Your task to perform on an android device: turn on notifications settings in the gmail app Image 0: 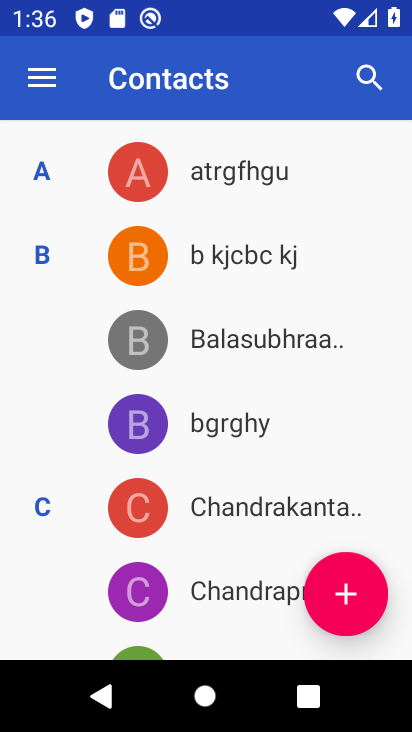
Step 0: press back button
Your task to perform on an android device: turn on notifications settings in the gmail app Image 1: 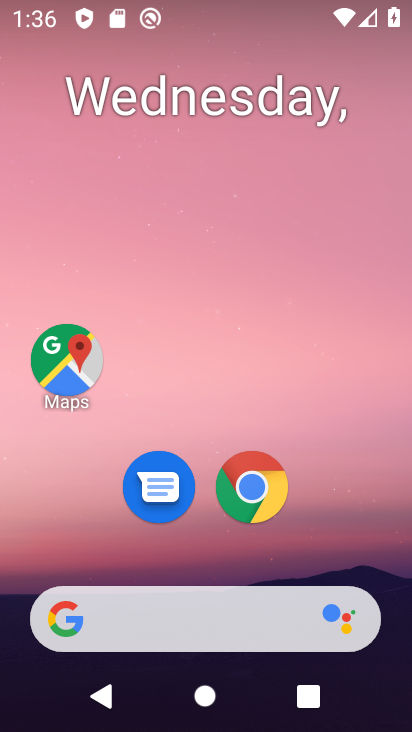
Step 1: drag from (125, 540) to (271, 14)
Your task to perform on an android device: turn on notifications settings in the gmail app Image 2: 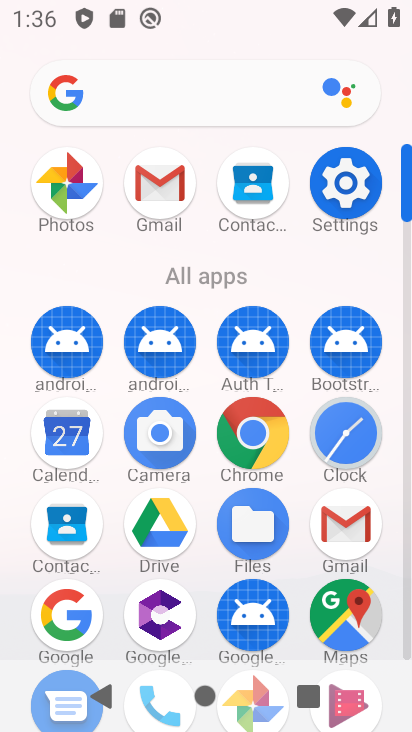
Step 2: click (162, 192)
Your task to perform on an android device: turn on notifications settings in the gmail app Image 3: 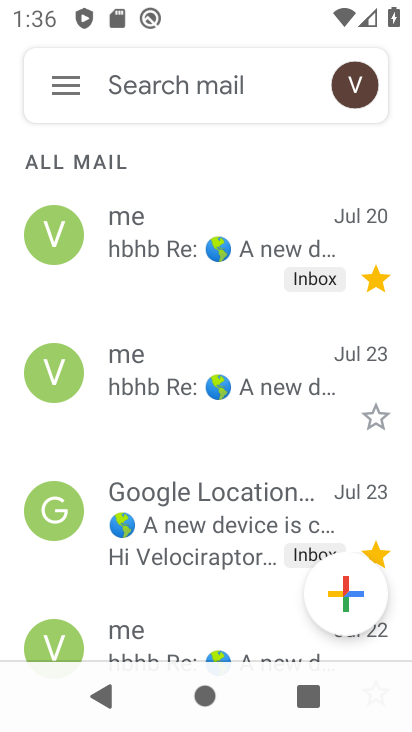
Step 3: click (79, 80)
Your task to perform on an android device: turn on notifications settings in the gmail app Image 4: 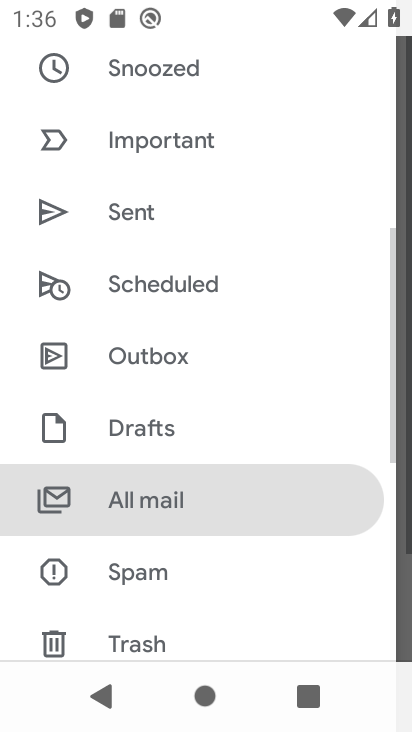
Step 4: drag from (227, 214) to (225, 654)
Your task to perform on an android device: turn on notifications settings in the gmail app Image 5: 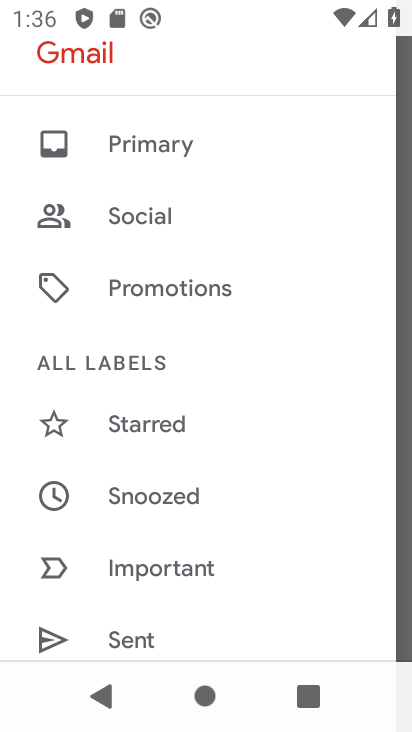
Step 5: drag from (152, 569) to (283, 128)
Your task to perform on an android device: turn on notifications settings in the gmail app Image 6: 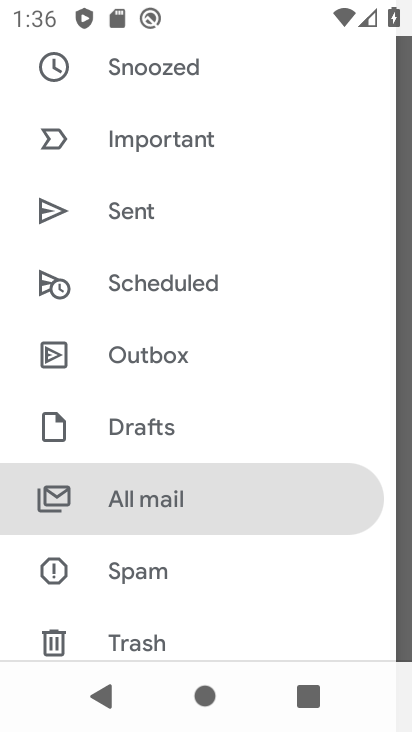
Step 6: drag from (243, 306) to (264, 201)
Your task to perform on an android device: turn on notifications settings in the gmail app Image 7: 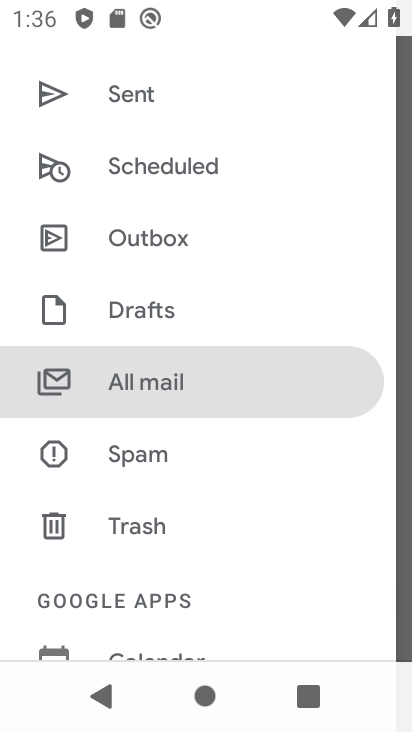
Step 7: drag from (200, 570) to (305, 2)
Your task to perform on an android device: turn on notifications settings in the gmail app Image 8: 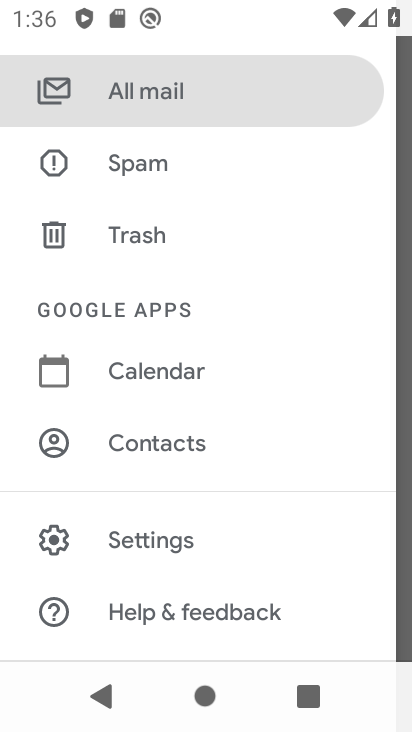
Step 8: click (168, 541)
Your task to perform on an android device: turn on notifications settings in the gmail app Image 9: 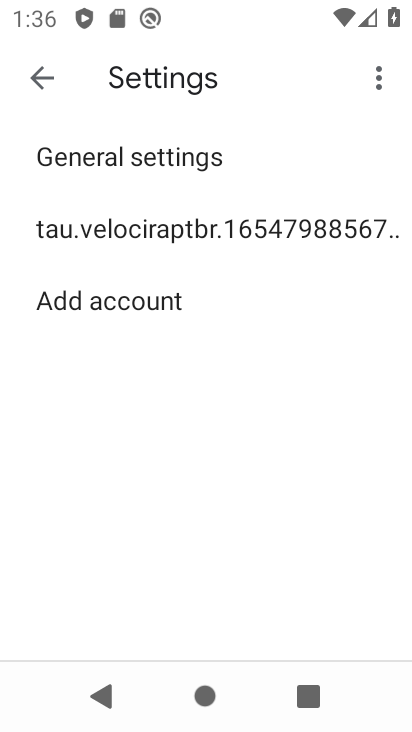
Step 9: click (165, 229)
Your task to perform on an android device: turn on notifications settings in the gmail app Image 10: 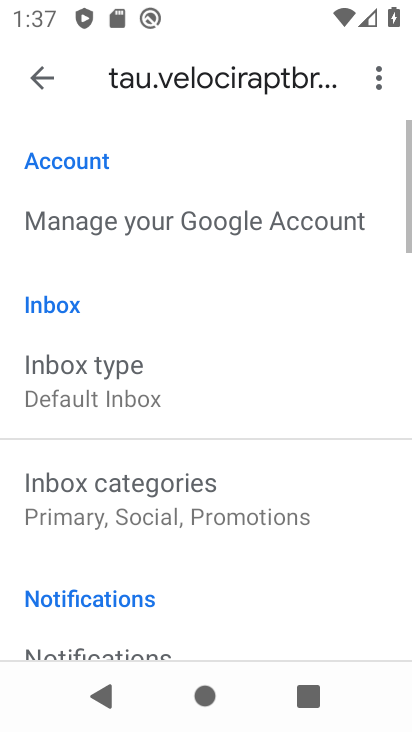
Step 10: drag from (148, 575) to (268, 183)
Your task to perform on an android device: turn on notifications settings in the gmail app Image 11: 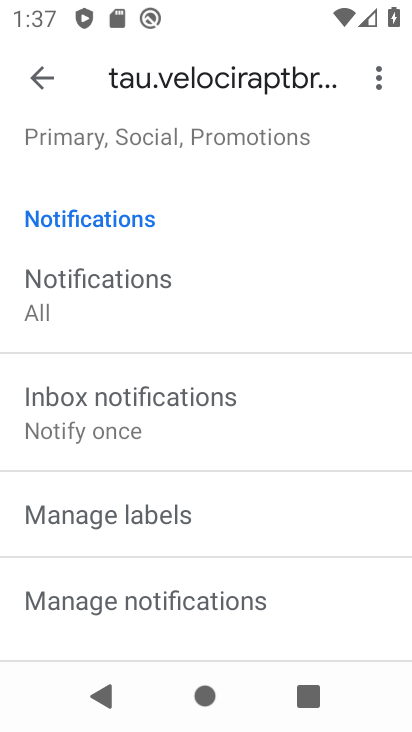
Step 11: click (97, 596)
Your task to perform on an android device: turn on notifications settings in the gmail app Image 12: 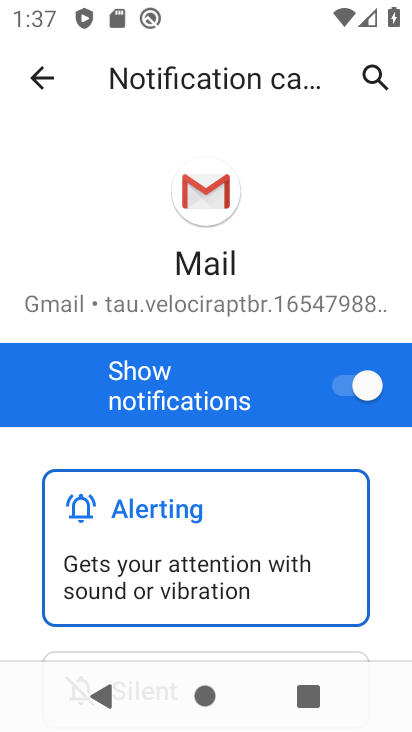
Step 12: task complete